Your task to perform on an android device: Clear the shopping cart on costco. Search for "bose quietcomfort 35" on costco, select the first entry, and add it to the cart. Image 0: 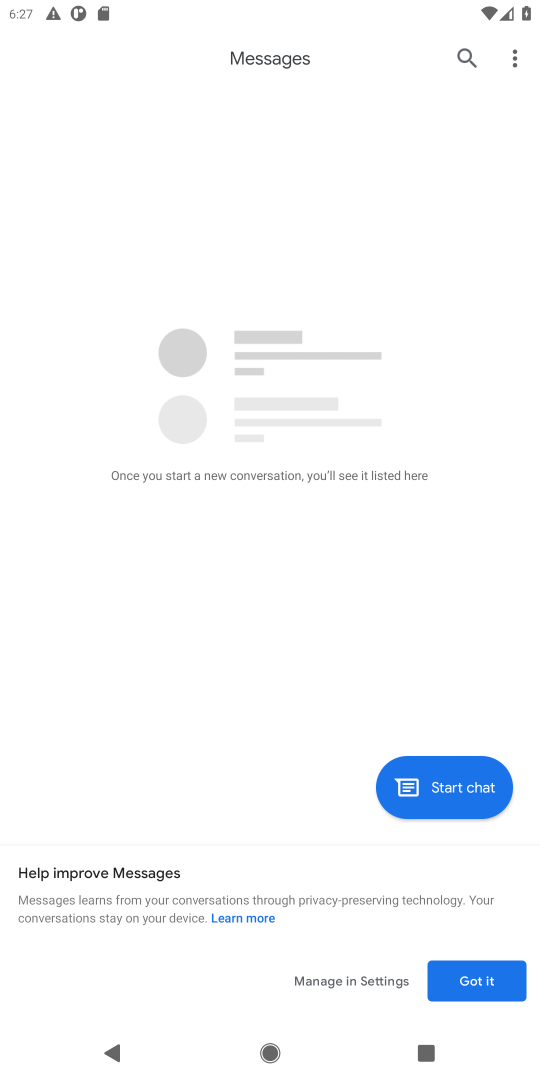
Step 0: press home button
Your task to perform on an android device: Clear the shopping cart on costco. Search for "bose quietcomfort 35" on costco, select the first entry, and add it to the cart. Image 1: 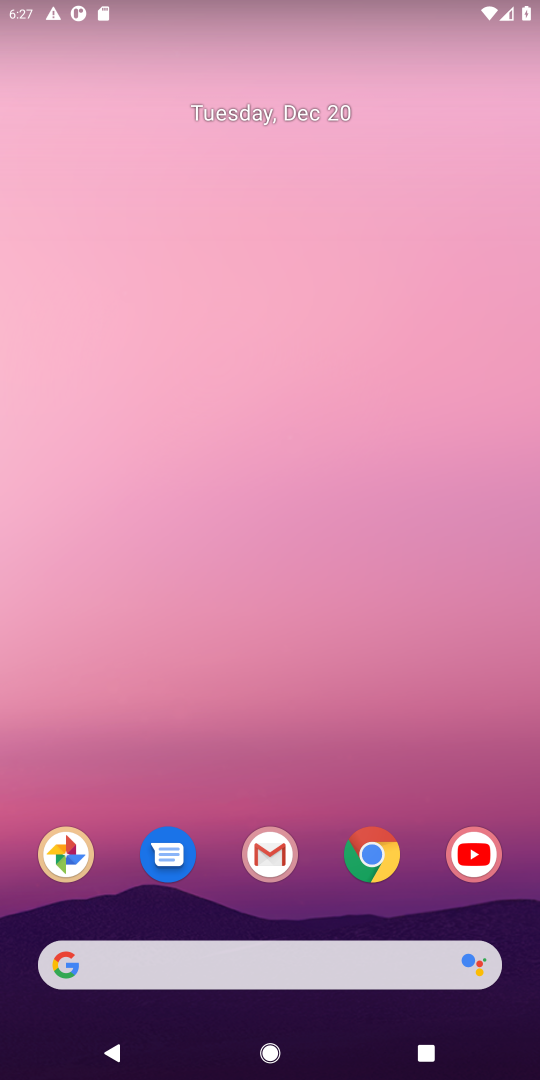
Step 1: click (380, 869)
Your task to perform on an android device: Clear the shopping cart on costco. Search for "bose quietcomfort 35" on costco, select the first entry, and add it to the cart. Image 2: 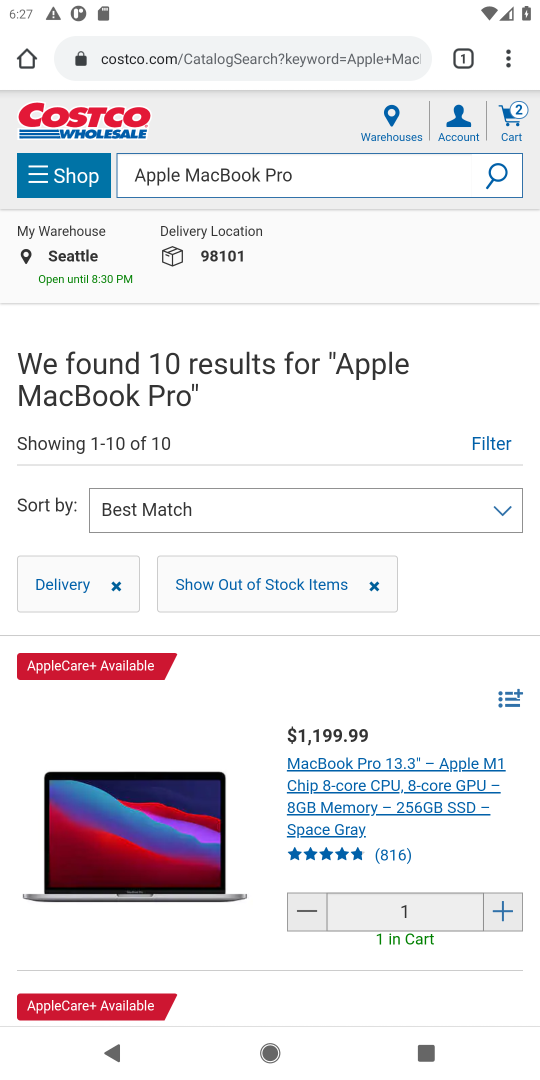
Step 2: click (509, 124)
Your task to perform on an android device: Clear the shopping cart on costco. Search for "bose quietcomfort 35" on costco, select the first entry, and add it to the cart. Image 3: 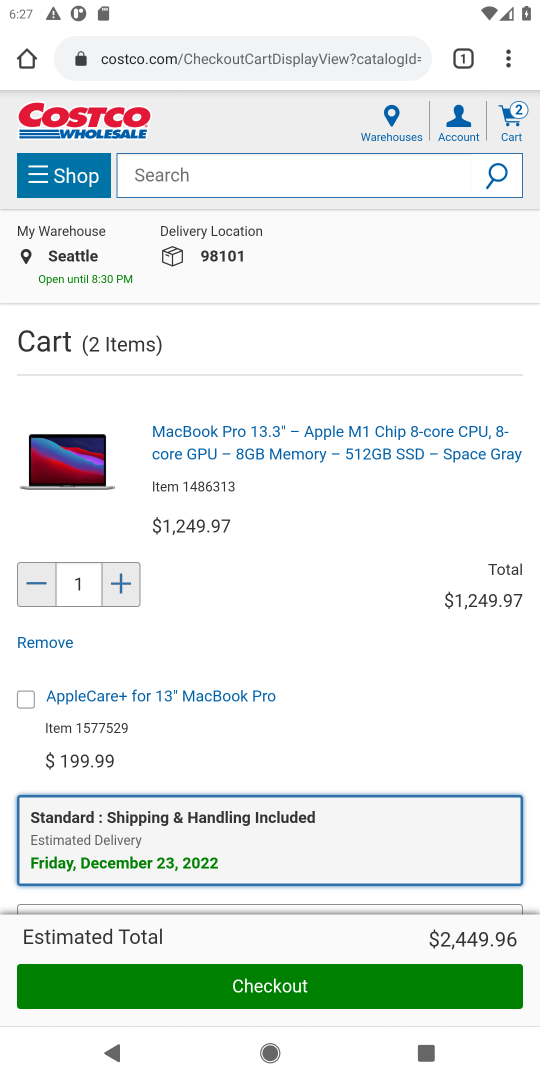
Step 3: drag from (244, 720) to (222, 336)
Your task to perform on an android device: Clear the shopping cart on costco. Search for "bose quietcomfort 35" on costco, select the first entry, and add it to the cart. Image 4: 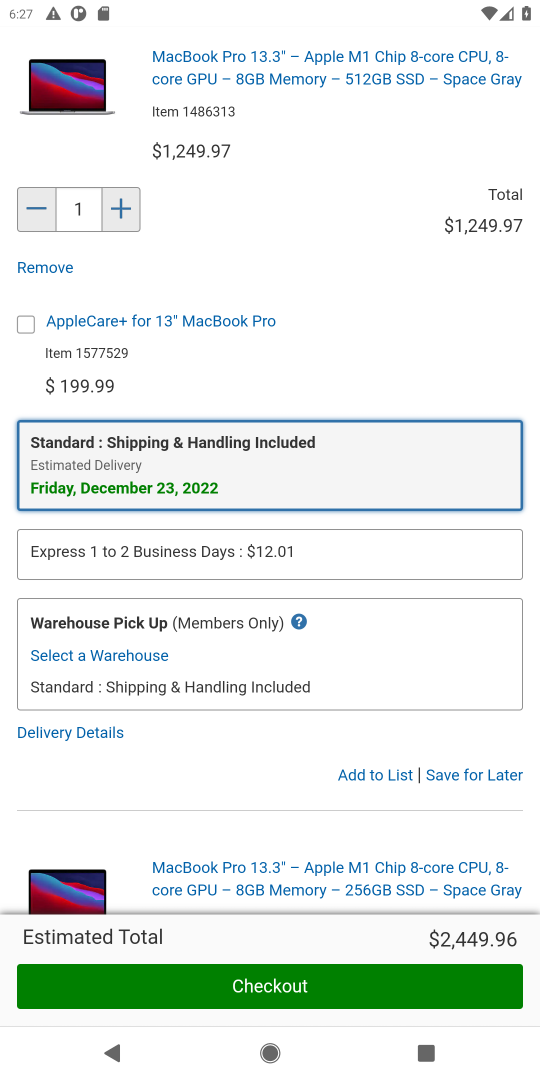
Step 4: click (459, 770)
Your task to perform on an android device: Clear the shopping cart on costco. Search for "bose quietcomfort 35" on costco, select the first entry, and add it to the cart. Image 5: 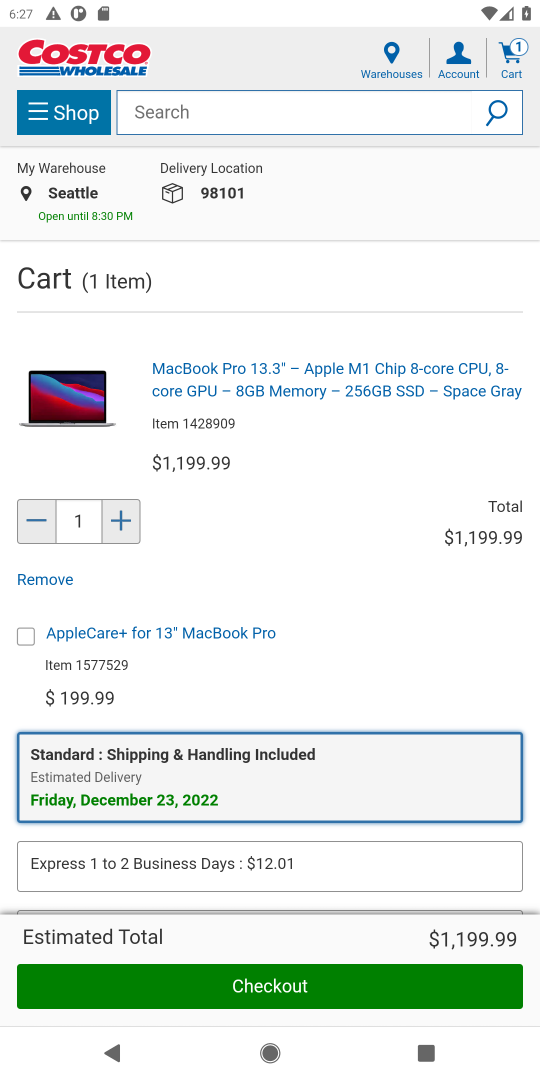
Step 5: drag from (300, 691) to (271, 486)
Your task to perform on an android device: Clear the shopping cart on costco. Search for "bose quietcomfort 35" on costco, select the first entry, and add it to the cart. Image 6: 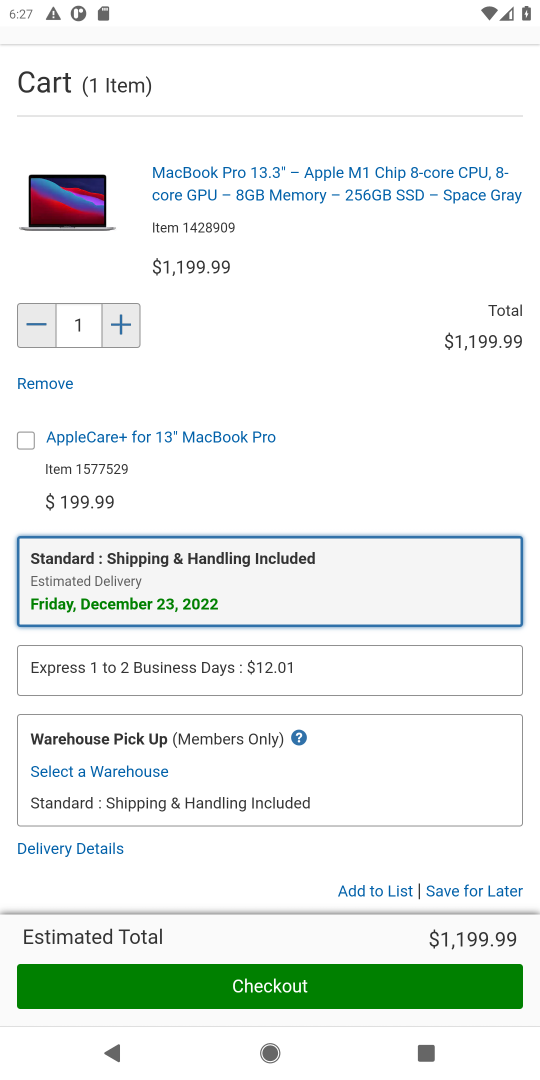
Step 6: click (453, 893)
Your task to perform on an android device: Clear the shopping cart on costco. Search for "bose quietcomfort 35" on costco, select the first entry, and add it to the cart. Image 7: 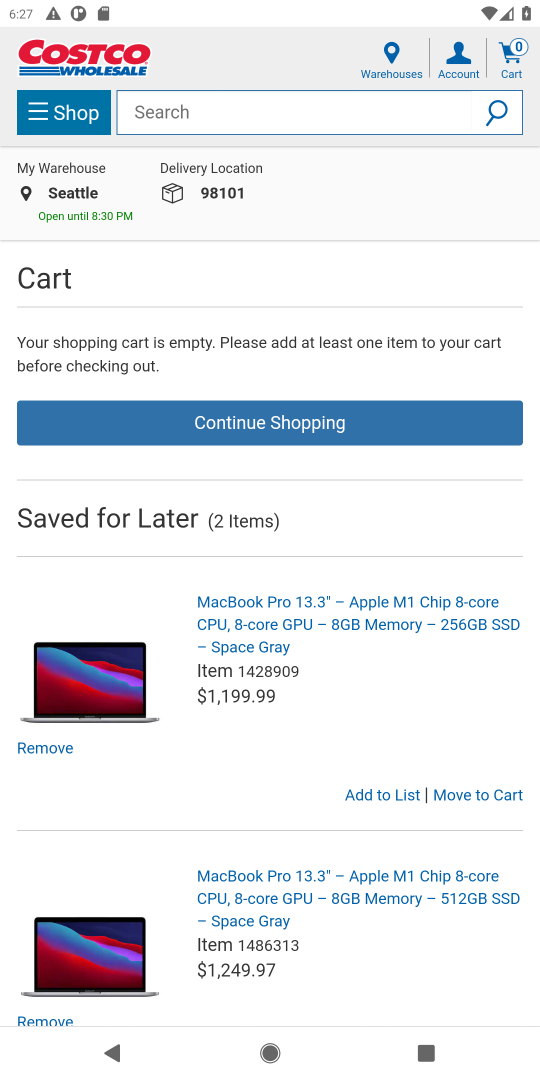
Step 7: click (167, 116)
Your task to perform on an android device: Clear the shopping cart on costco. Search for "bose quietcomfort 35" on costco, select the first entry, and add it to the cart. Image 8: 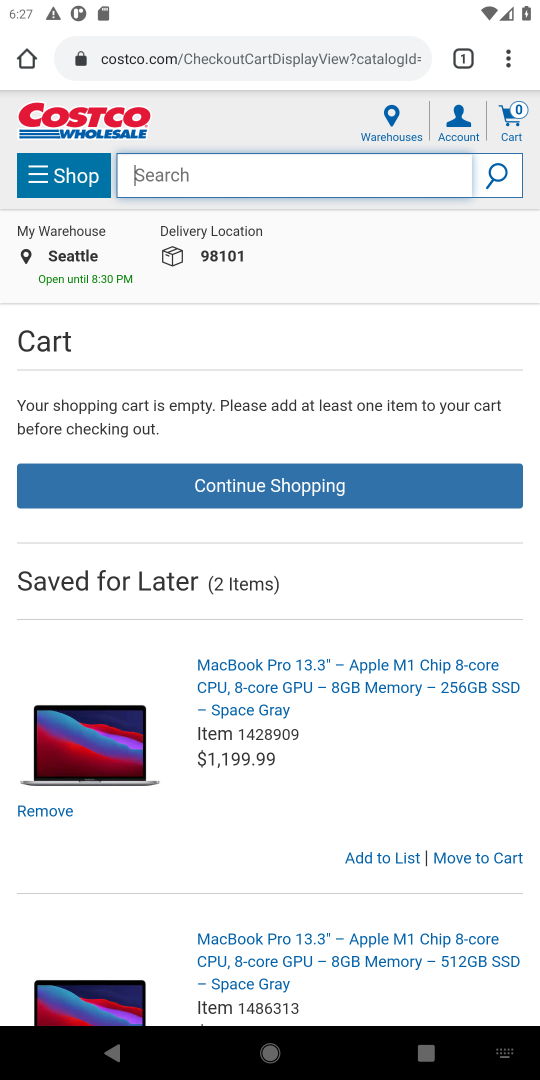
Step 8: type "bose quietcomfort 35"
Your task to perform on an android device: Clear the shopping cart on costco. Search for "bose quietcomfort 35" on costco, select the first entry, and add it to the cart. Image 9: 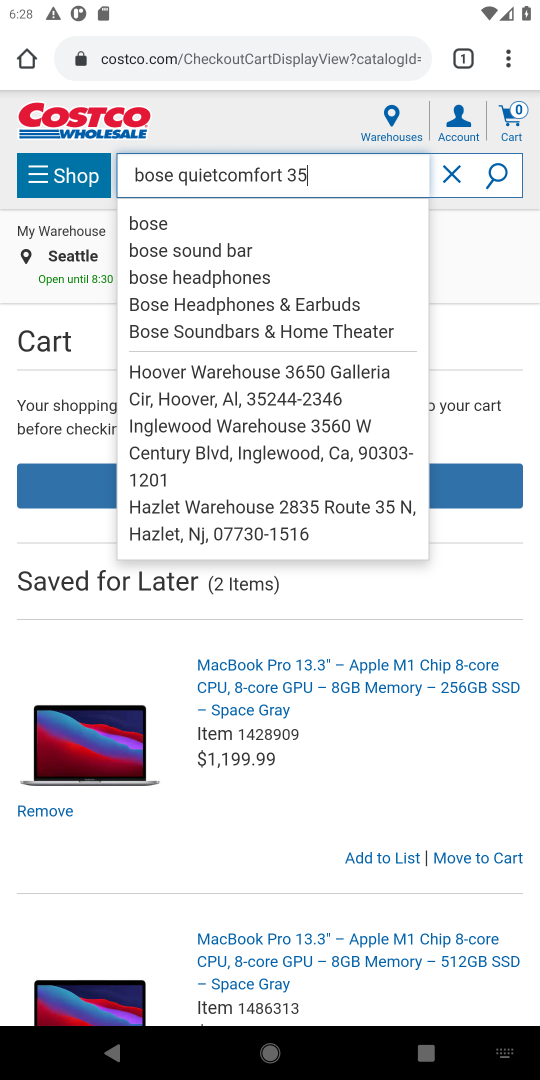
Step 9: click (493, 181)
Your task to perform on an android device: Clear the shopping cart on costco. Search for "bose quietcomfort 35" on costco, select the first entry, and add it to the cart. Image 10: 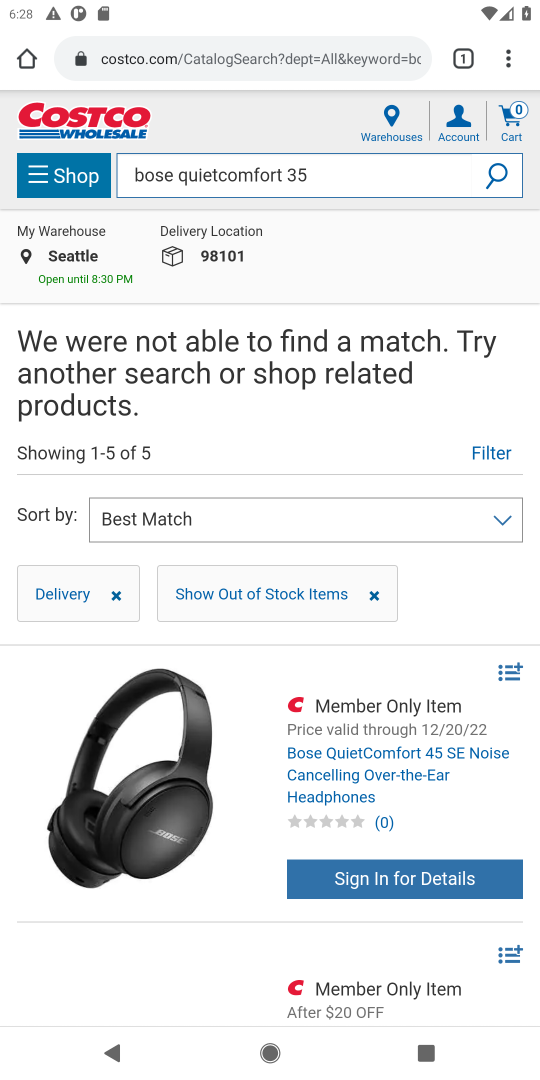
Step 10: task complete